Your task to perform on an android device: Open the Play Movies app and select the watchlist tab. Image 0: 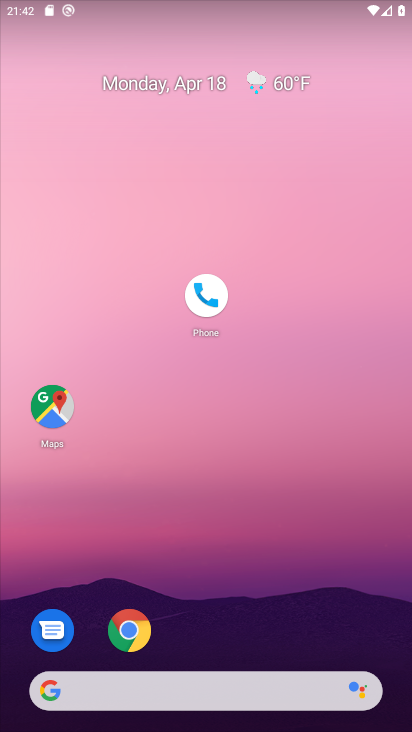
Step 0: drag from (388, 615) to (341, 114)
Your task to perform on an android device: Open the Play Movies app and select the watchlist tab. Image 1: 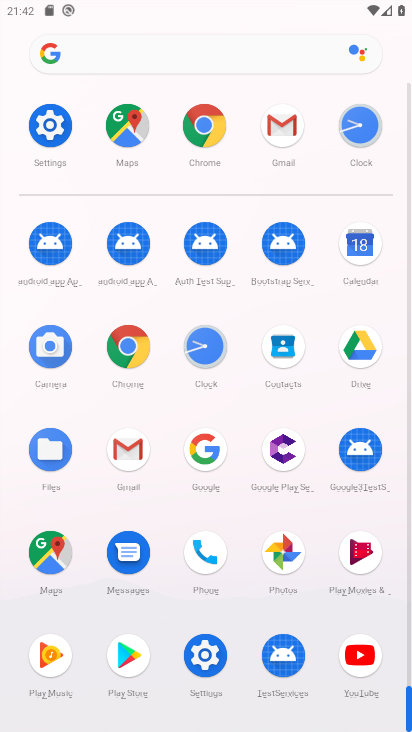
Step 1: click (360, 557)
Your task to perform on an android device: Open the Play Movies app and select the watchlist tab. Image 2: 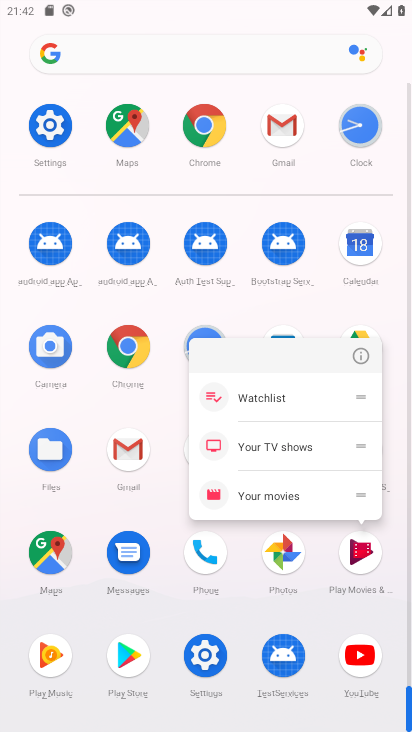
Step 2: click (360, 557)
Your task to perform on an android device: Open the Play Movies app and select the watchlist tab. Image 3: 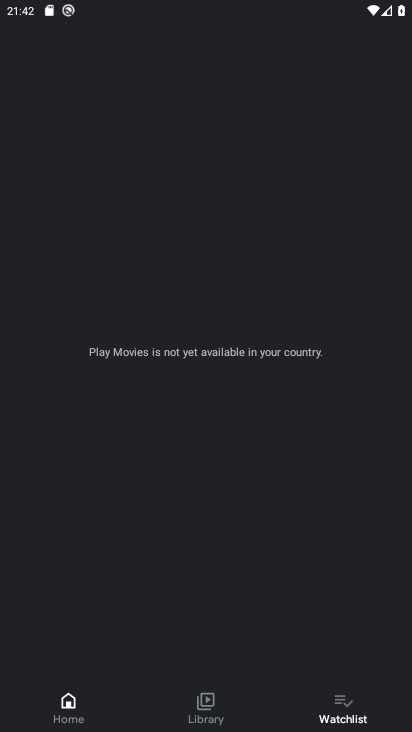
Step 3: task complete